Your task to perform on an android device: turn on improve location accuracy Image 0: 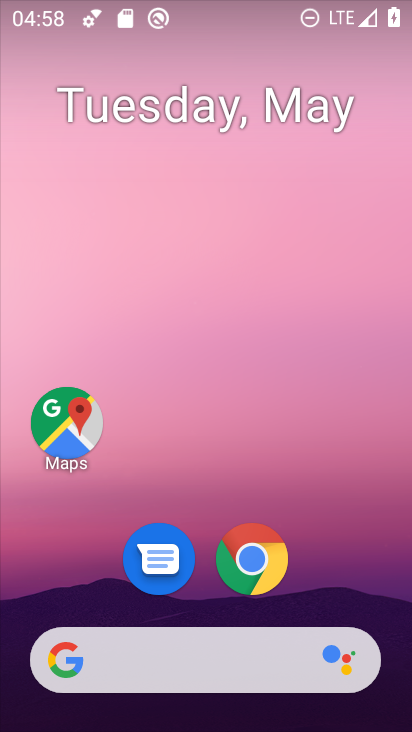
Step 0: drag from (249, 713) to (238, 237)
Your task to perform on an android device: turn on improve location accuracy Image 1: 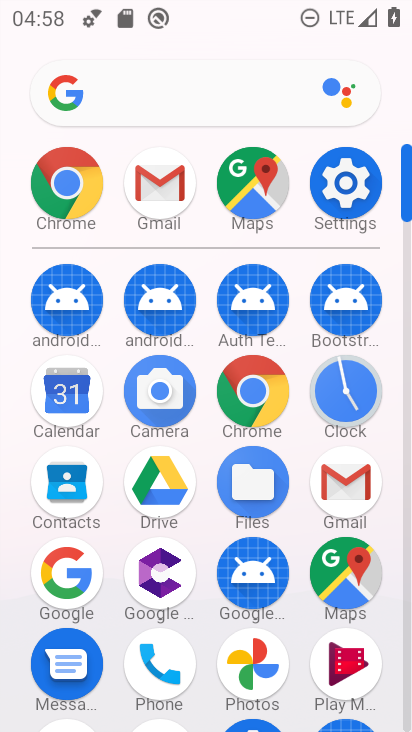
Step 1: click (347, 181)
Your task to perform on an android device: turn on improve location accuracy Image 2: 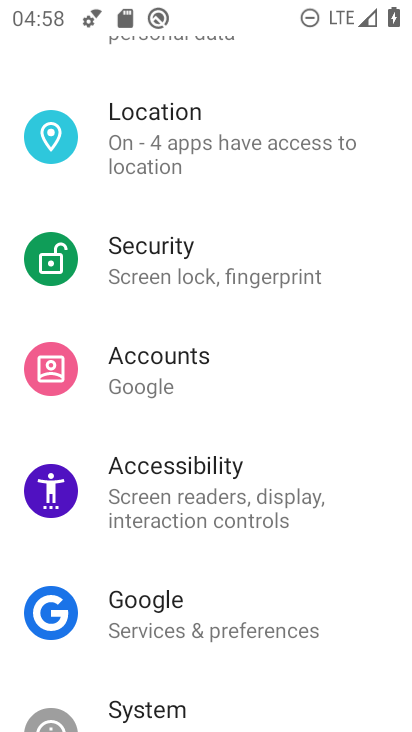
Step 2: click (188, 128)
Your task to perform on an android device: turn on improve location accuracy Image 3: 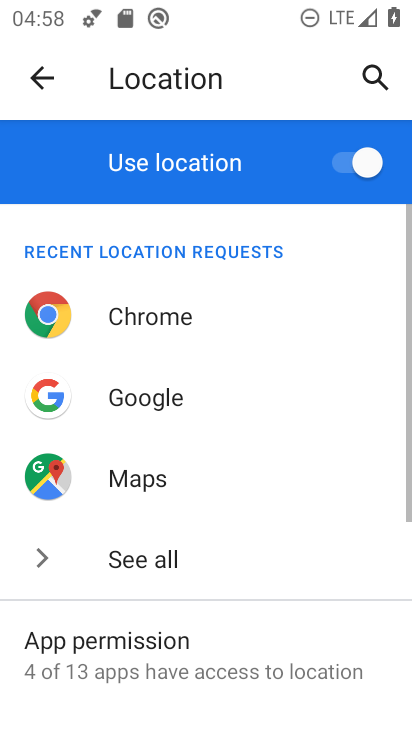
Step 3: drag from (164, 685) to (178, 298)
Your task to perform on an android device: turn on improve location accuracy Image 4: 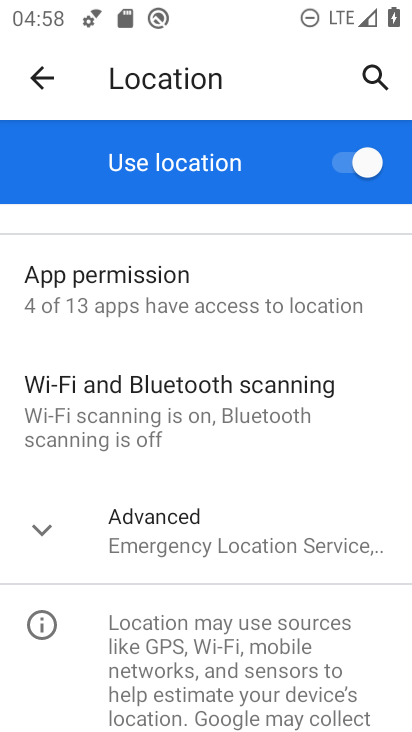
Step 4: click (143, 522)
Your task to perform on an android device: turn on improve location accuracy Image 5: 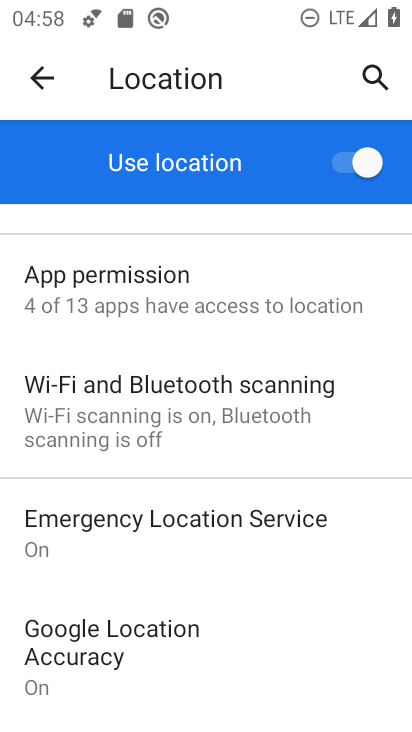
Step 5: click (128, 622)
Your task to perform on an android device: turn on improve location accuracy Image 6: 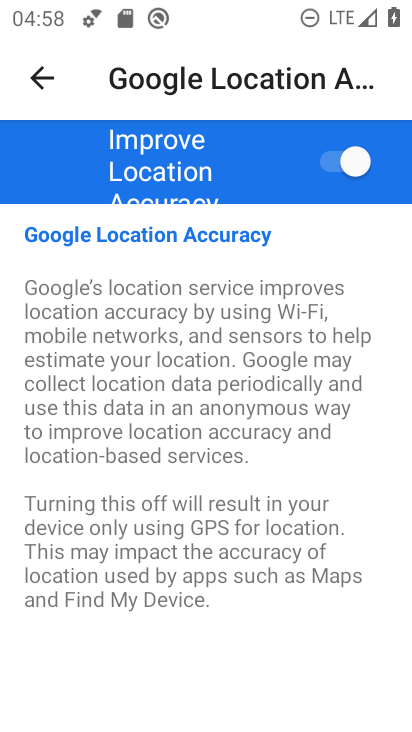
Step 6: task complete